Your task to perform on an android device: toggle location history Image 0: 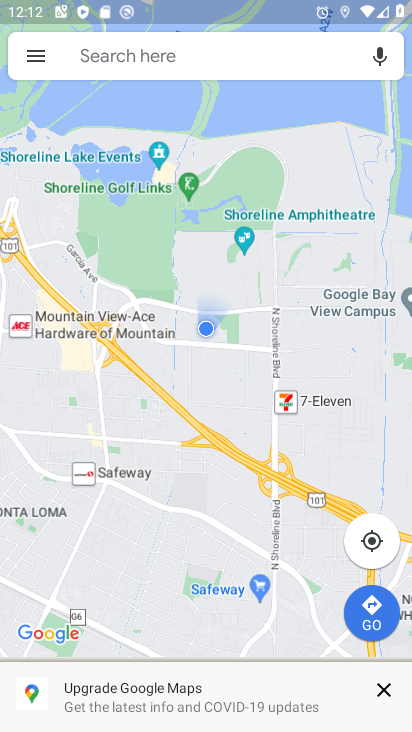
Step 0: press back button
Your task to perform on an android device: toggle location history Image 1: 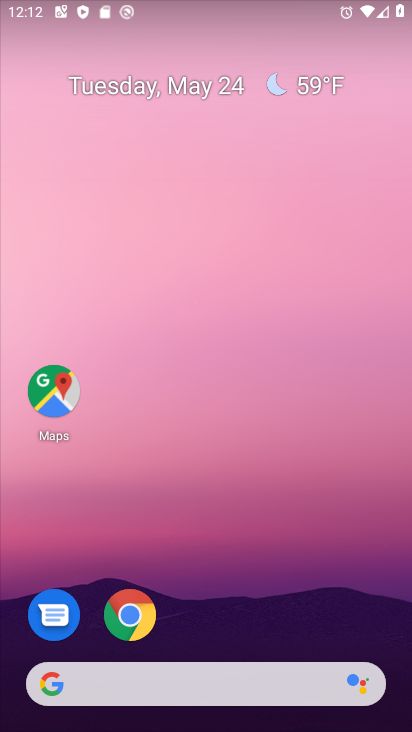
Step 1: drag from (296, 631) to (216, 10)
Your task to perform on an android device: toggle location history Image 2: 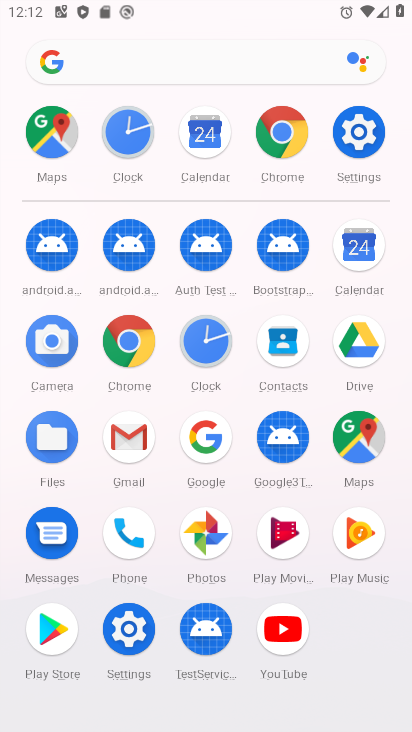
Step 2: drag from (7, 553) to (19, 189)
Your task to perform on an android device: toggle location history Image 3: 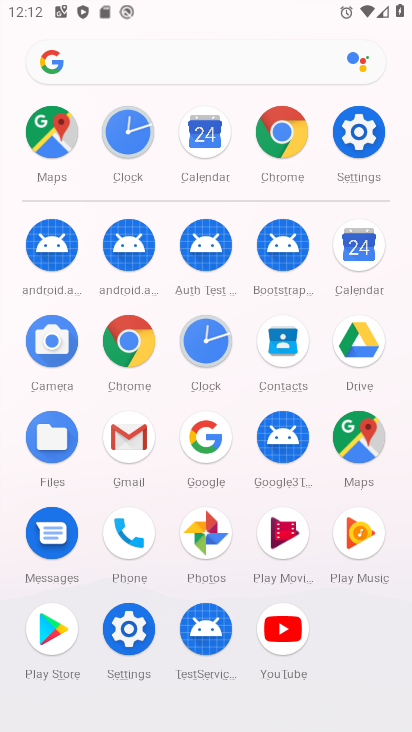
Step 3: click (127, 624)
Your task to perform on an android device: toggle location history Image 4: 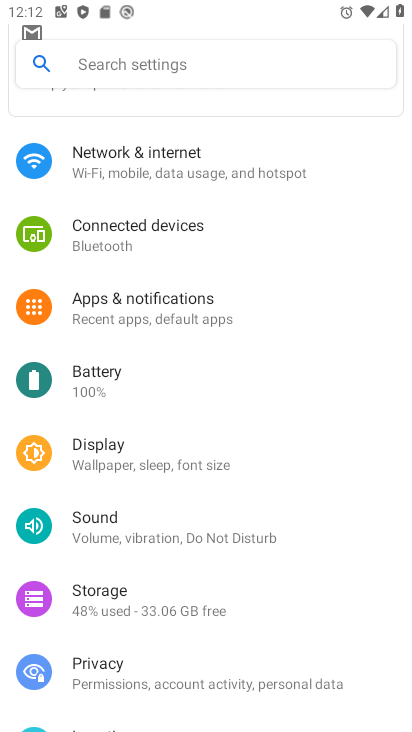
Step 4: drag from (258, 223) to (259, 596)
Your task to perform on an android device: toggle location history Image 5: 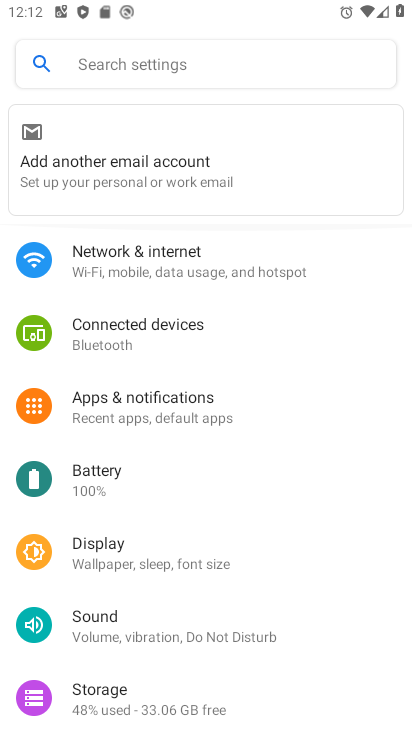
Step 5: drag from (259, 583) to (264, 227)
Your task to perform on an android device: toggle location history Image 6: 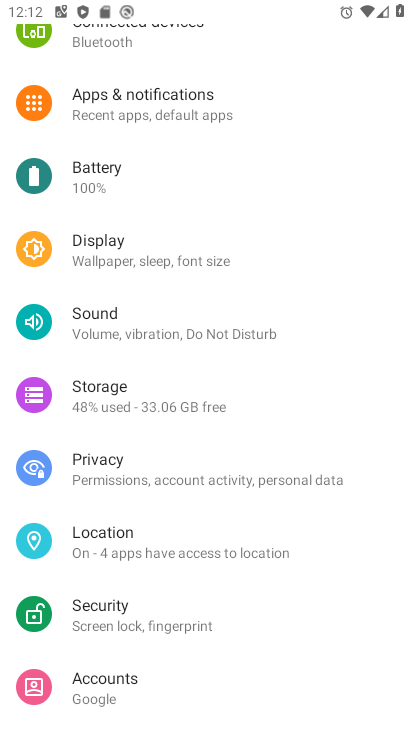
Step 6: click (147, 543)
Your task to perform on an android device: toggle location history Image 7: 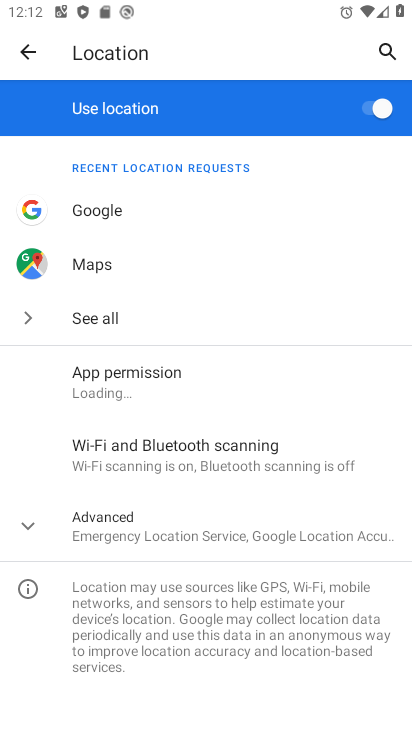
Step 7: click (117, 530)
Your task to perform on an android device: toggle location history Image 8: 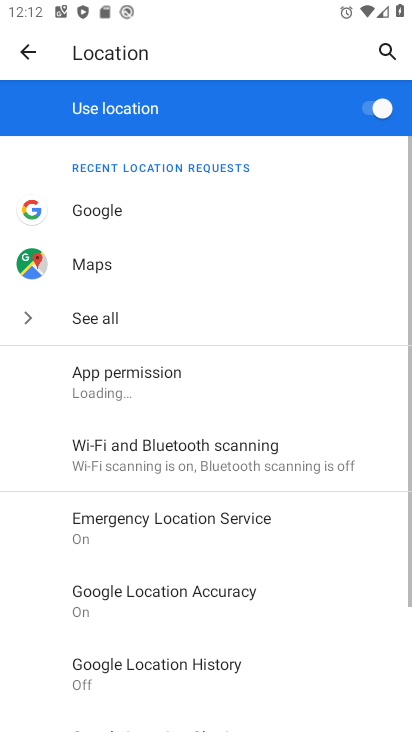
Step 8: drag from (245, 617) to (260, 240)
Your task to perform on an android device: toggle location history Image 9: 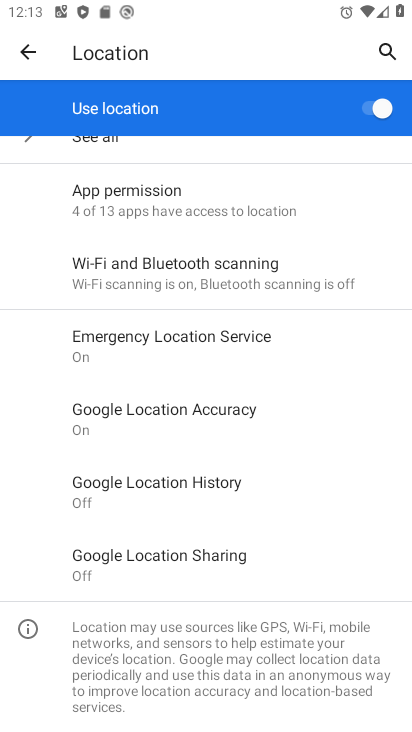
Step 9: click (187, 500)
Your task to perform on an android device: toggle location history Image 10: 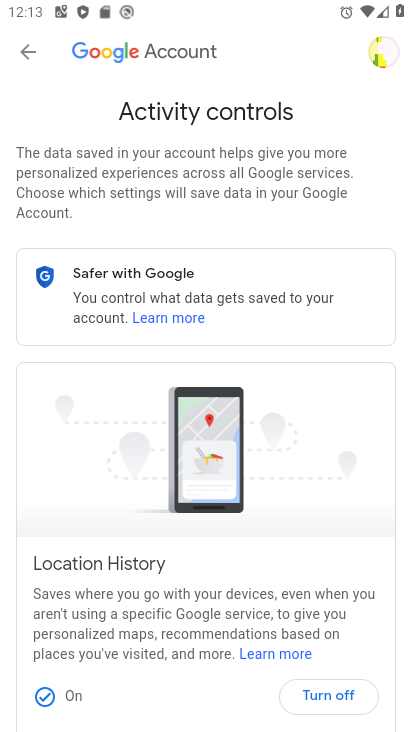
Step 10: drag from (118, 430) to (110, 206)
Your task to perform on an android device: toggle location history Image 11: 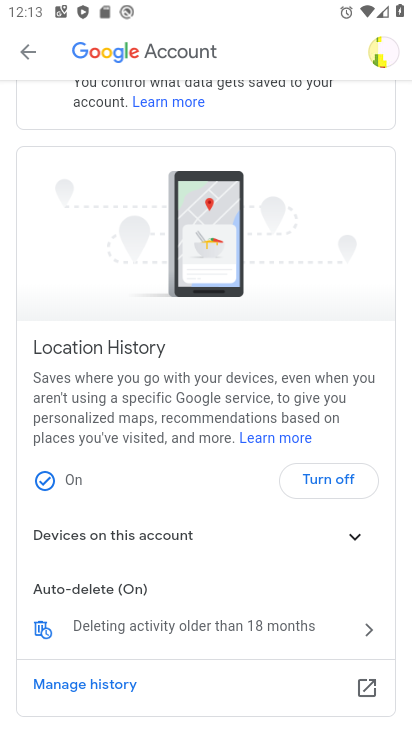
Step 11: click (79, 633)
Your task to perform on an android device: toggle location history Image 12: 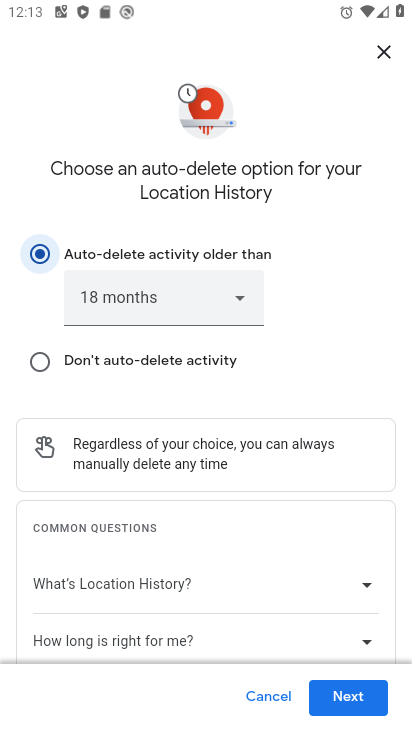
Step 12: click (329, 698)
Your task to perform on an android device: toggle location history Image 13: 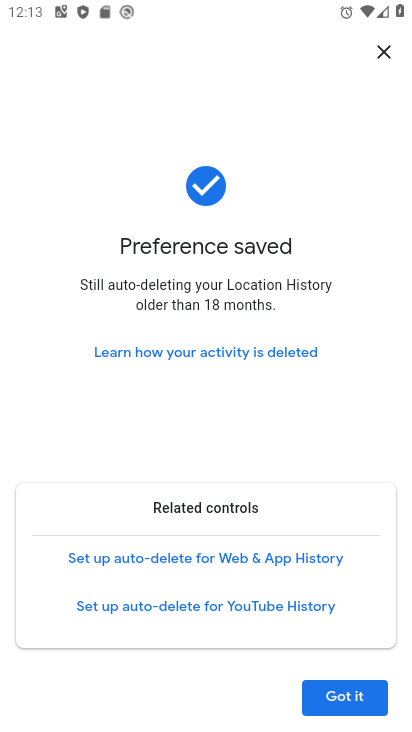
Step 13: task complete